Your task to perform on an android device: change keyboard looks Image 0: 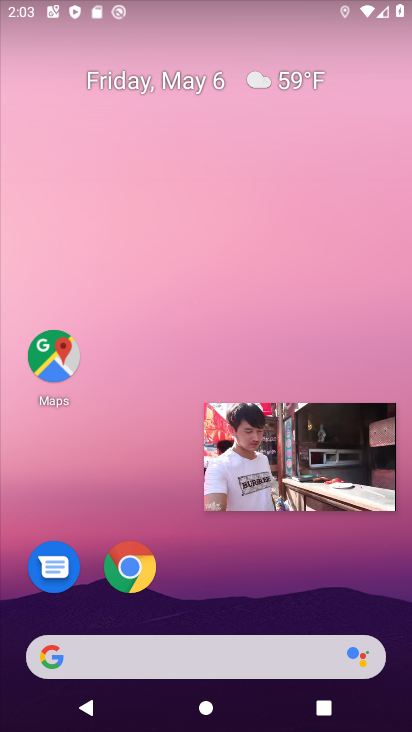
Step 0: click (248, 445)
Your task to perform on an android device: change keyboard looks Image 1: 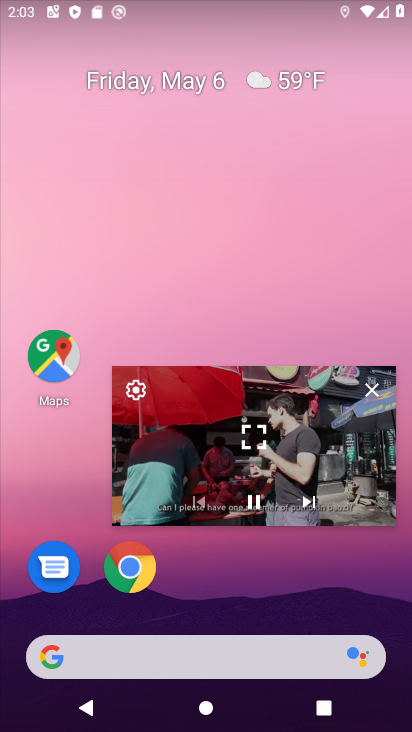
Step 1: click (369, 388)
Your task to perform on an android device: change keyboard looks Image 2: 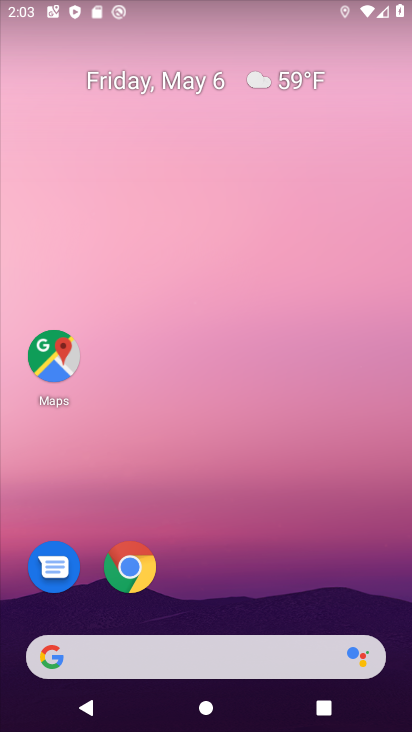
Step 2: drag from (393, 627) to (329, 172)
Your task to perform on an android device: change keyboard looks Image 3: 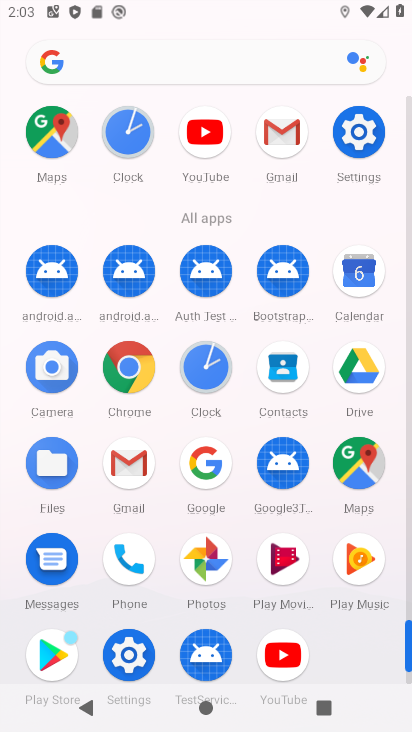
Step 3: click (126, 654)
Your task to perform on an android device: change keyboard looks Image 4: 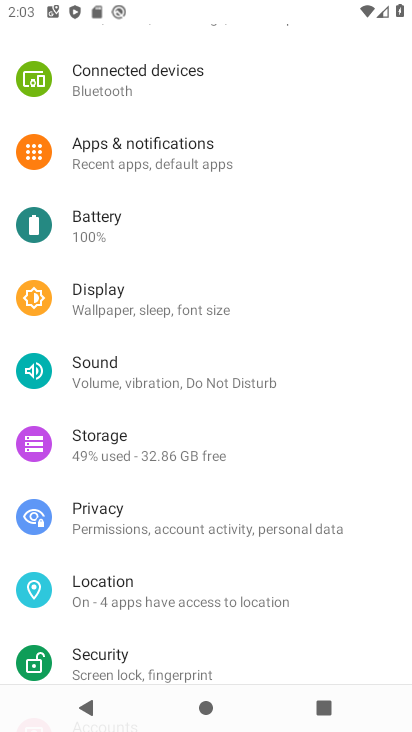
Step 4: drag from (265, 627) to (317, 251)
Your task to perform on an android device: change keyboard looks Image 5: 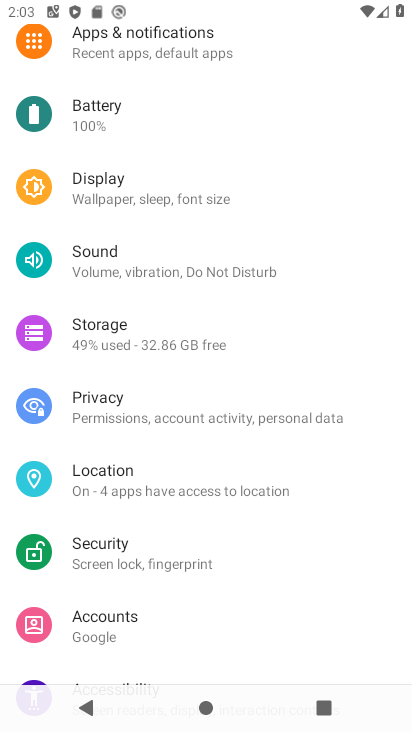
Step 5: drag from (323, 600) to (327, 216)
Your task to perform on an android device: change keyboard looks Image 6: 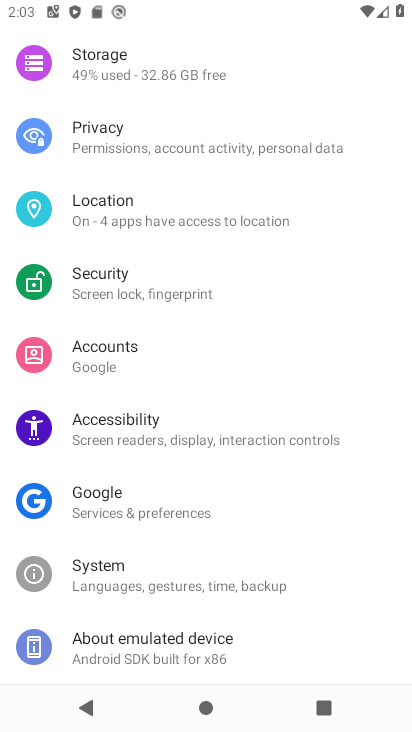
Step 6: click (80, 571)
Your task to perform on an android device: change keyboard looks Image 7: 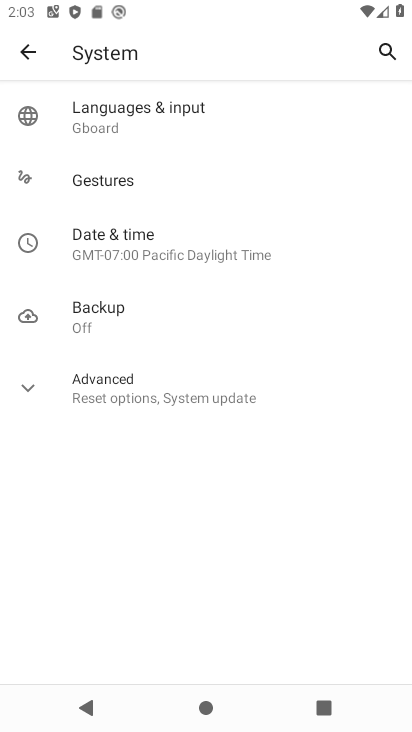
Step 7: click (102, 107)
Your task to perform on an android device: change keyboard looks Image 8: 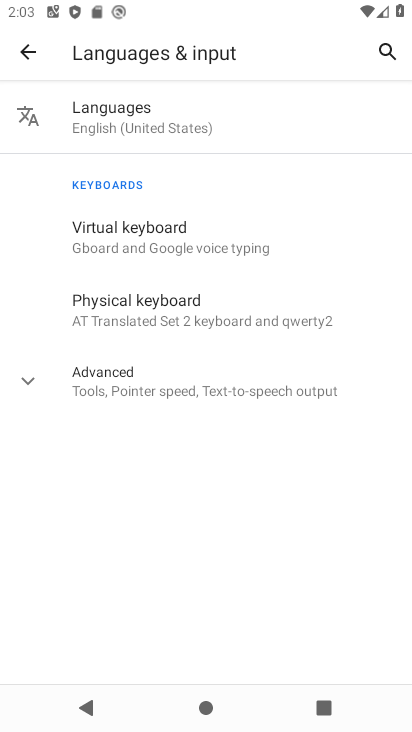
Step 8: click (97, 305)
Your task to perform on an android device: change keyboard looks Image 9: 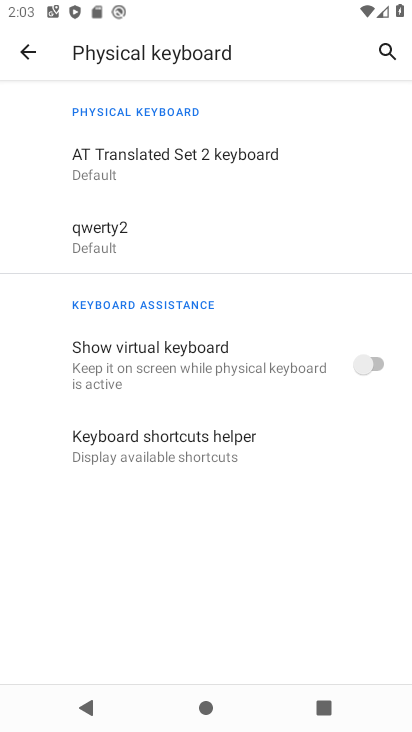
Step 9: click (89, 234)
Your task to perform on an android device: change keyboard looks Image 10: 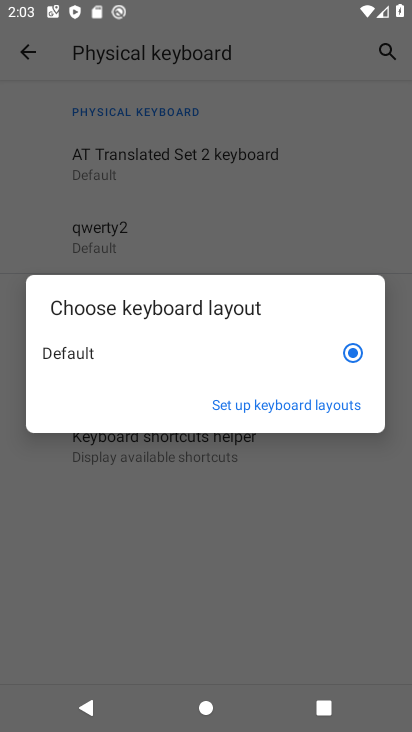
Step 10: click (292, 408)
Your task to perform on an android device: change keyboard looks Image 11: 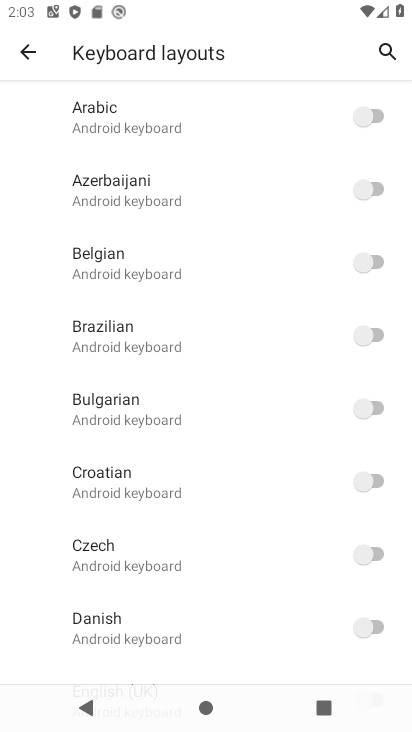
Step 11: drag from (282, 624) to (260, 172)
Your task to perform on an android device: change keyboard looks Image 12: 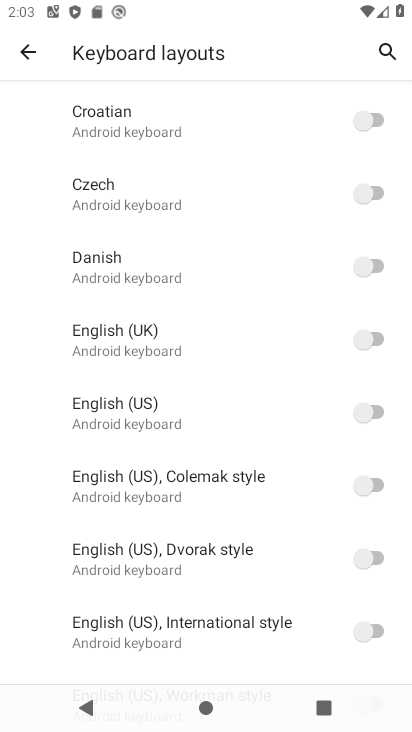
Step 12: click (374, 338)
Your task to perform on an android device: change keyboard looks Image 13: 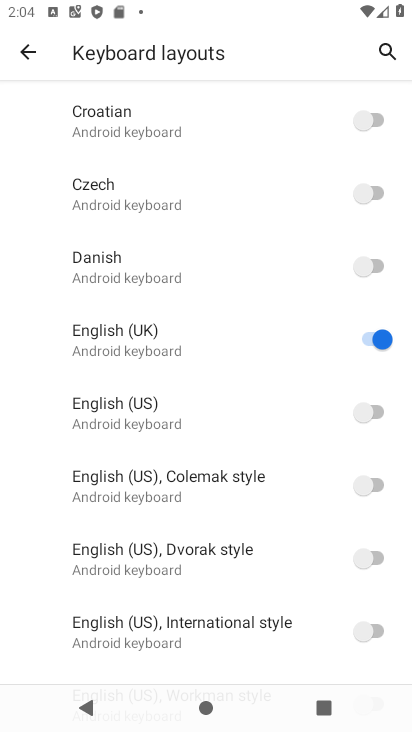
Step 13: task complete